Your task to perform on an android device: Turn on the flashlight Image 0: 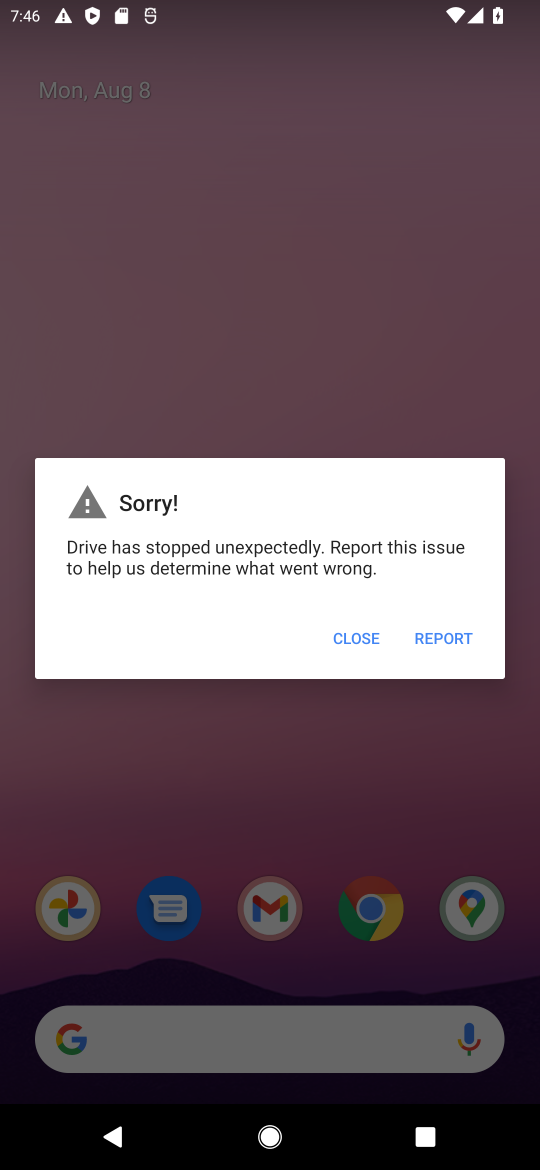
Step 0: click (374, 637)
Your task to perform on an android device: Turn on the flashlight Image 1: 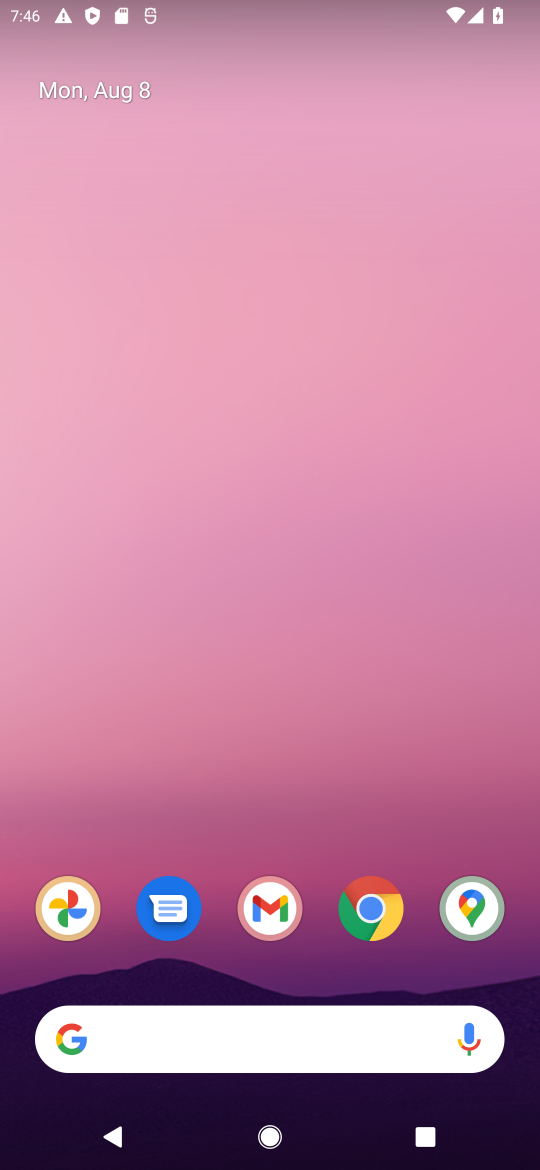
Step 1: drag from (230, 965) to (166, 489)
Your task to perform on an android device: Turn on the flashlight Image 2: 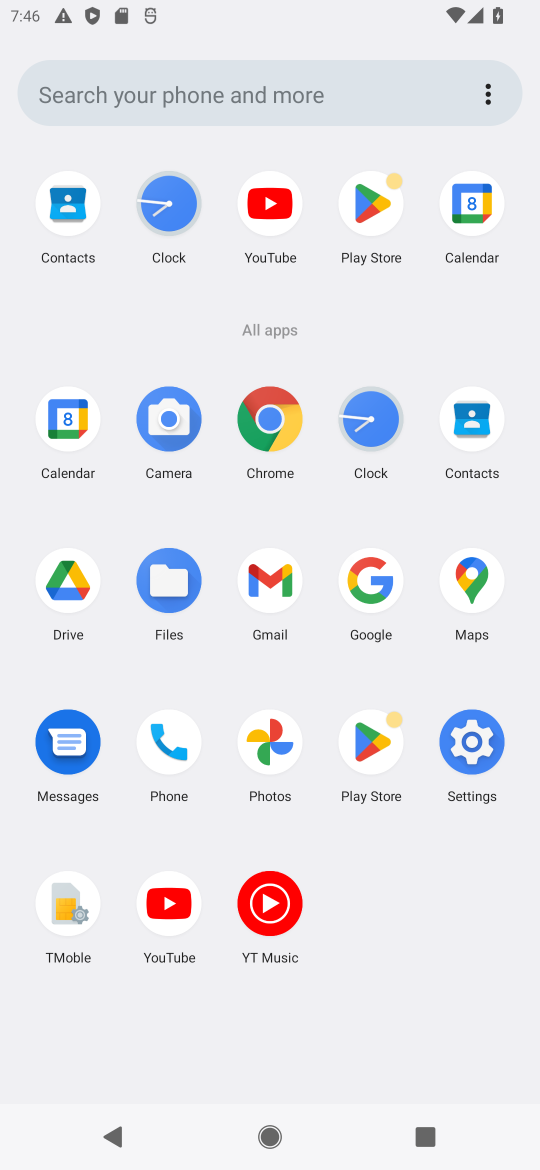
Step 2: click (475, 821)
Your task to perform on an android device: Turn on the flashlight Image 3: 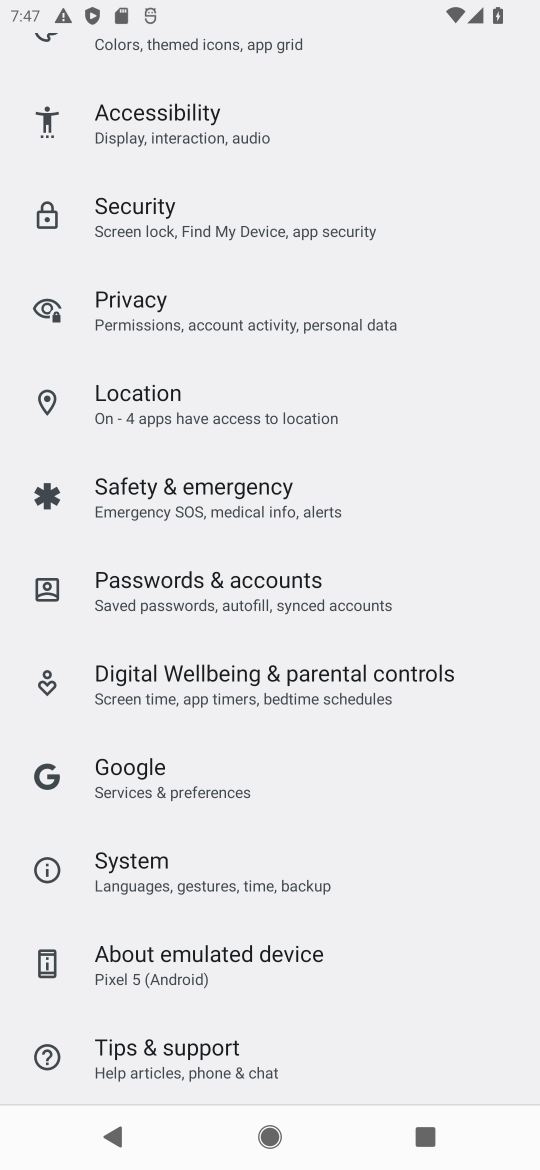
Step 3: task complete